Your task to perform on an android device: Open display settings Image 0: 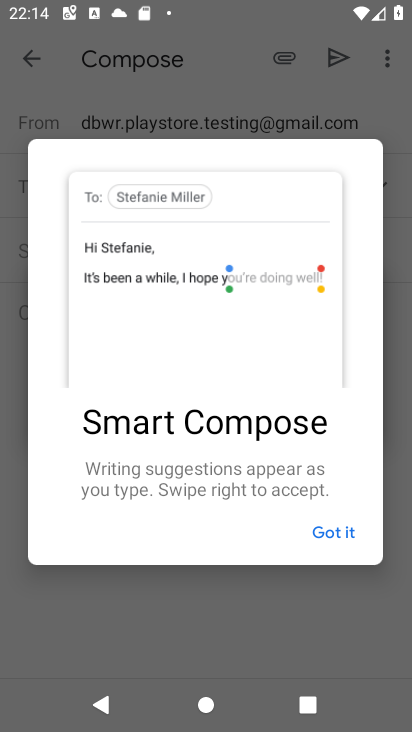
Step 0: press home button
Your task to perform on an android device: Open display settings Image 1: 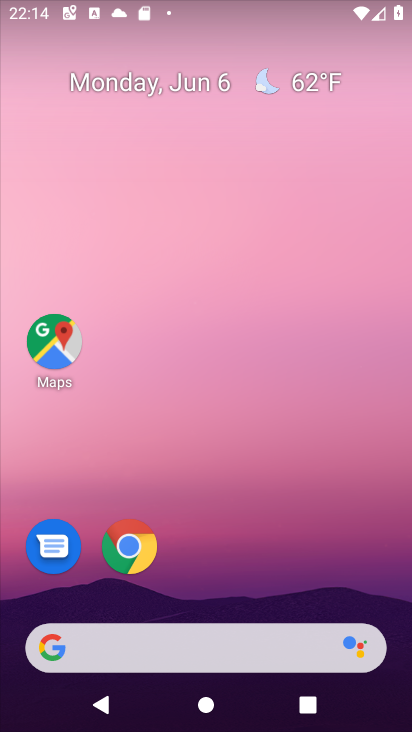
Step 1: drag from (399, 599) to (299, 0)
Your task to perform on an android device: Open display settings Image 2: 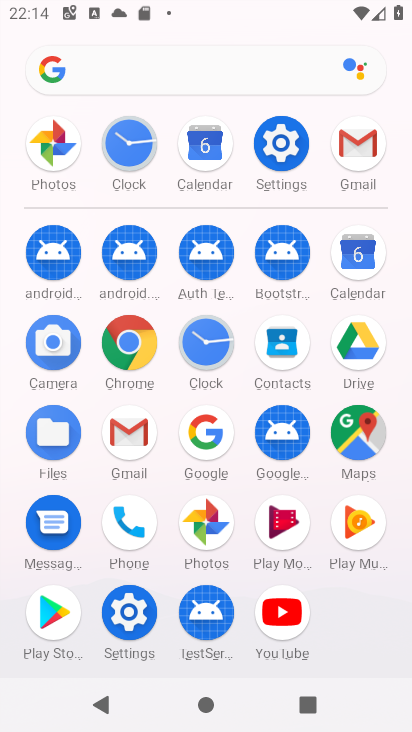
Step 2: click (128, 614)
Your task to perform on an android device: Open display settings Image 3: 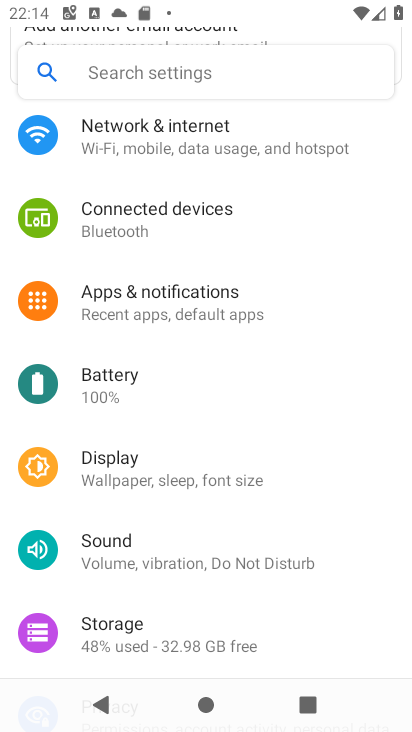
Step 3: click (121, 469)
Your task to perform on an android device: Open display settings Image 4: 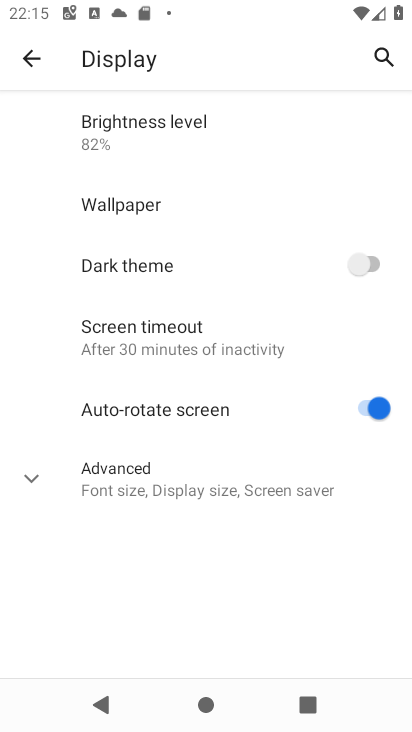
Step 4: click (52, 472)
Your task to perform on an android device: Open display settings Image 5: 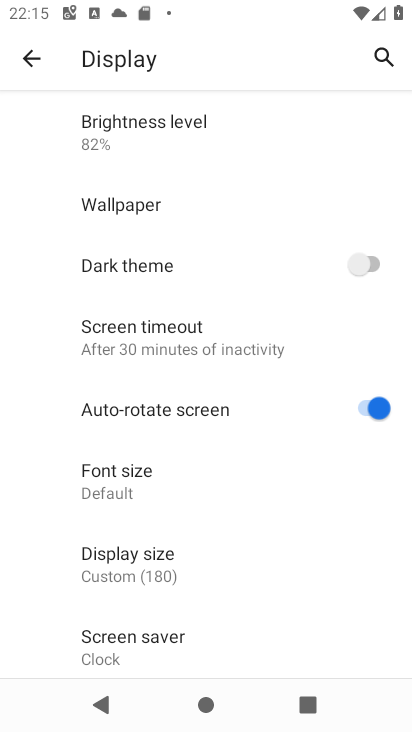
Step 5: task complete